Your task to perform on an android device: Is it going to rain tomorrow? Image 0: 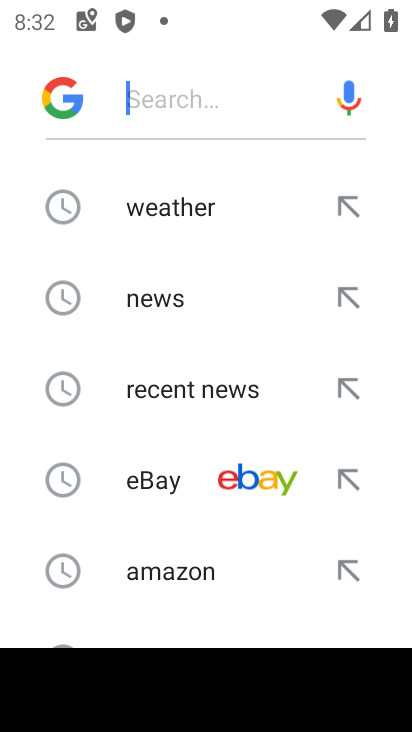
Step 0: click (187, 213)
Your task to perform on an android device: Is it going to rain tomorrow? Image 1: 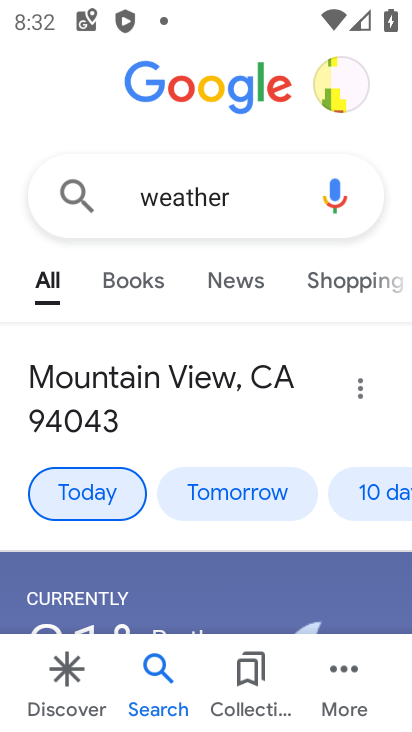
Step 1: click (247, 493)
Your task to perform on an android device: Is it going to rain tomorrow? Image 2: 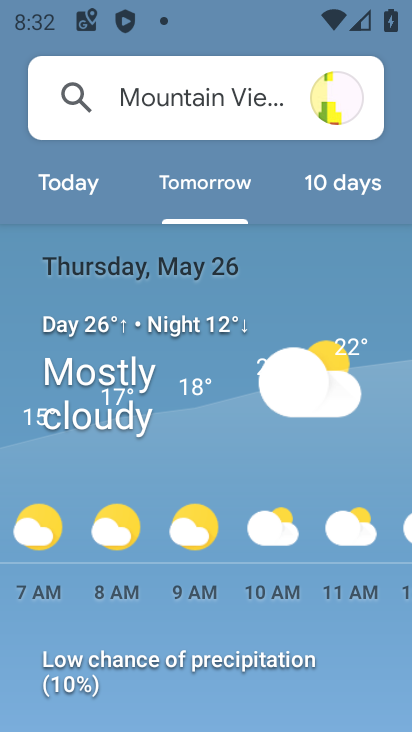
Step 2: task complete